Your task to perform on an android device: Check out the new nike air max 2020. Image 0: 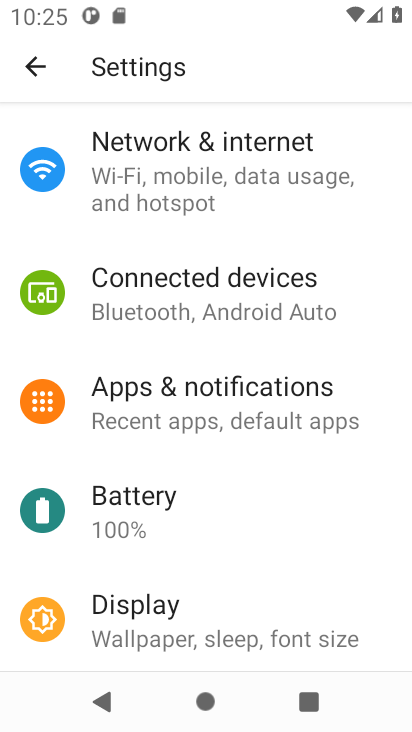
Step 0: press home button
Your task to perform on an android device: Check out the new nike air max 2020. Image 1: 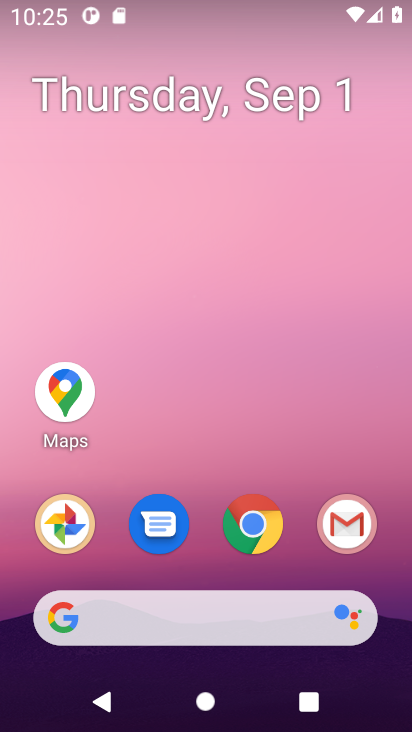
Step 1: click (224, 611)
Your task to perform on an android device: Check out the new nike air max 2020. Image 2: 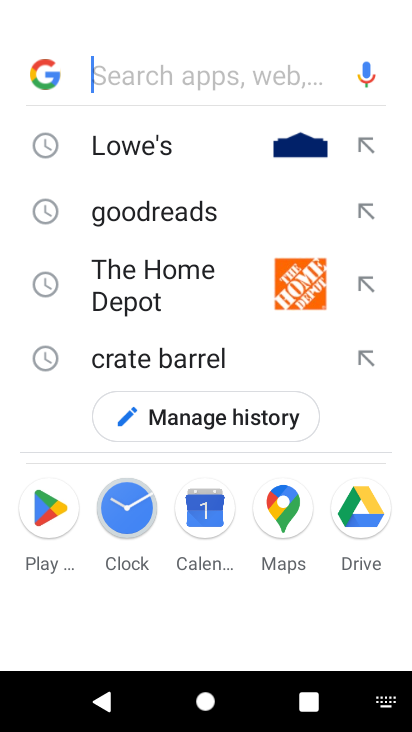
Step 2: press enter
Your task to perform on an android device: Check out the new nike air max 2020. Image 3: 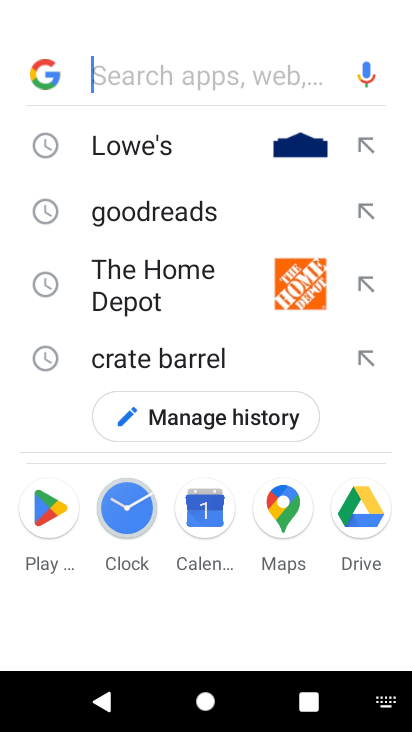
Step 3: type "new nike air max 2020"
Your task to perform on an android device: Check out the new nike air max 2020. Image 4: 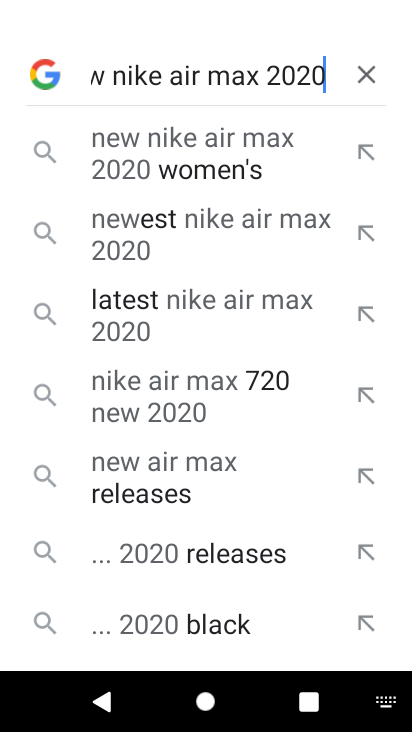
Step 4: click (230, 219)
Your task to perform on an android device: Check out the new nike air max 2020. Image 5: 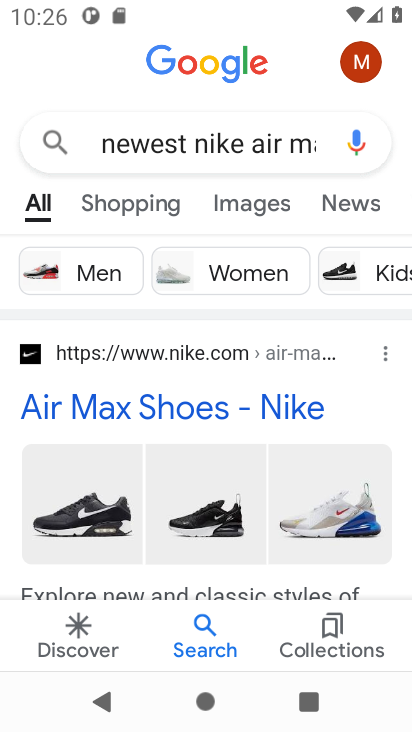
Step 5: task complete